Your task to perform on an android device: set default search engine in the chrome app Image 0: 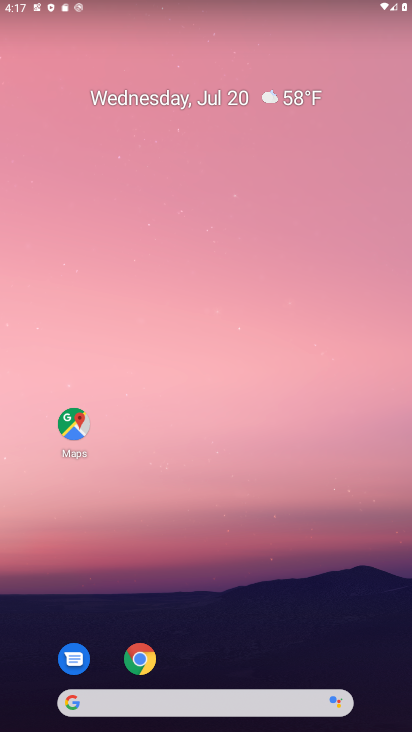
Step 0: drag from (224, 573) to (209, 389)
Your task to perform on an android device: set default search engine in the chrome app Image 1: 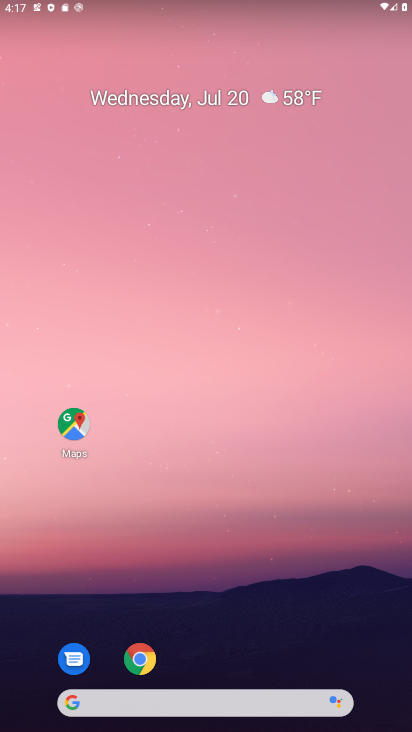
Step 1: drag from (243, 604) to (199, 281)
Your task to perform on an android device: set default search engine in the chrome app Image 2: 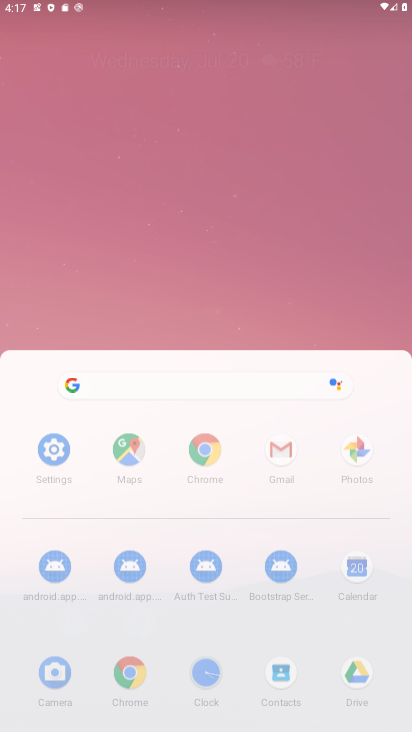
Step 2: drag from (208, 568) to (181, 159)
Your task to perform on an android device: set default search engine in the chrome app Image 3: 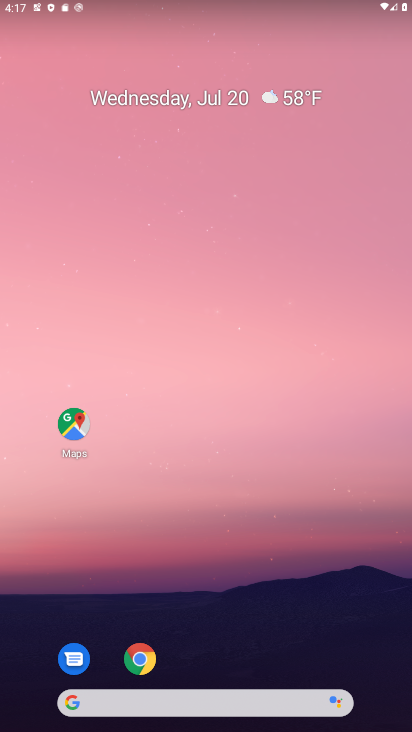
Step 3: drag from (253, 593) to (260, 181)
Your task to perform on an android device: set default search engine in the chrome app Image 4: 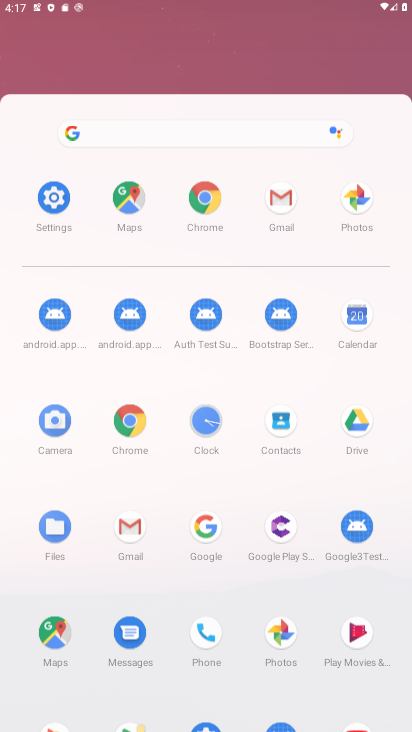
Step 4: drag from (311, 534) to (322, 174)
Your task to perform on an android device: set default search engine in the chrome app Image 5: 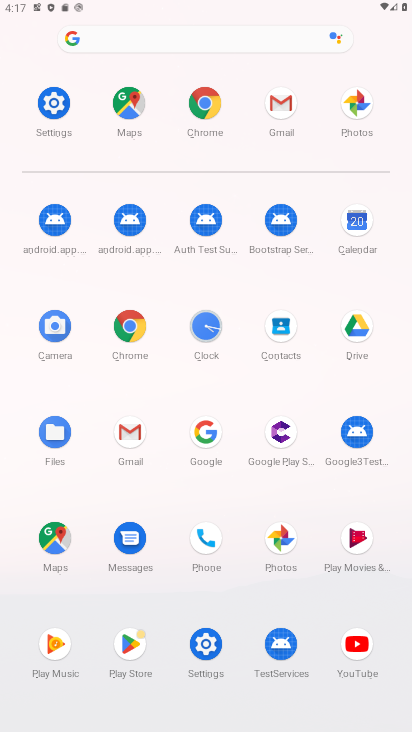
Step 5: click (205, 95)
Your task to perform on an android device: set default search engine in the chrome app Image 6: 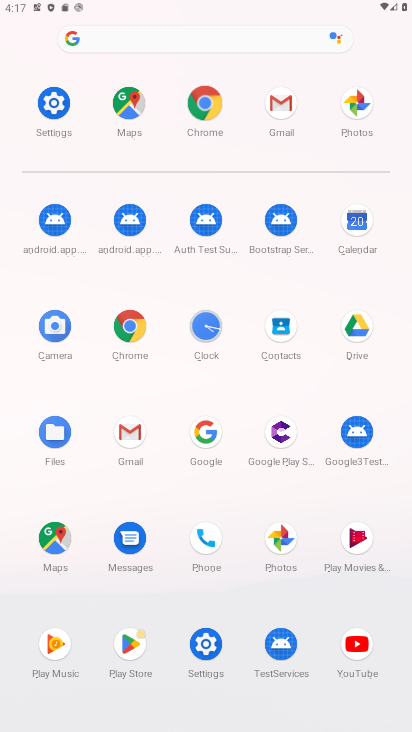
Step 6: click (207, 96)
Your task to perform on an android device: set default search engine in the chrome app Image 7: 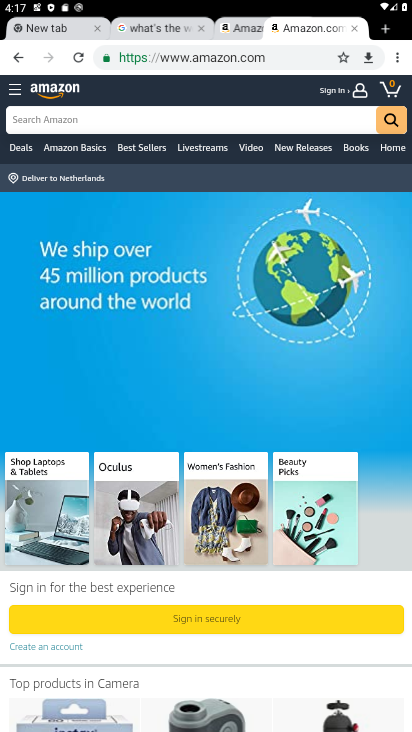
Step 7: drag from (406, 60) to (271, 376)
Your task to perform on an android device: set default search engine in the chrome app Image 8: 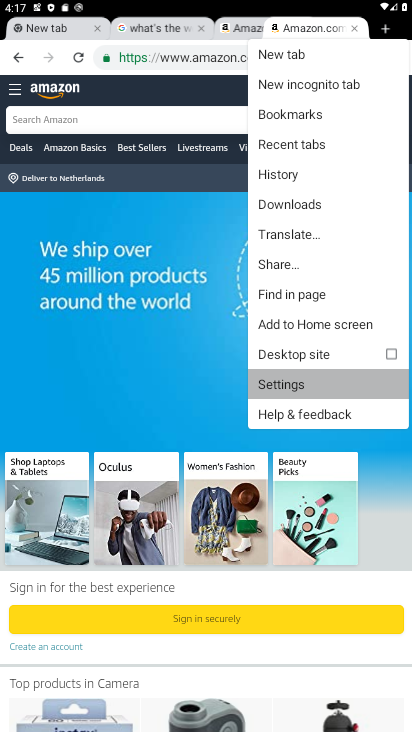
Step 8: click (272, 375)
Your task to perform on an android device: set default search engine in the chrome app Image 9: 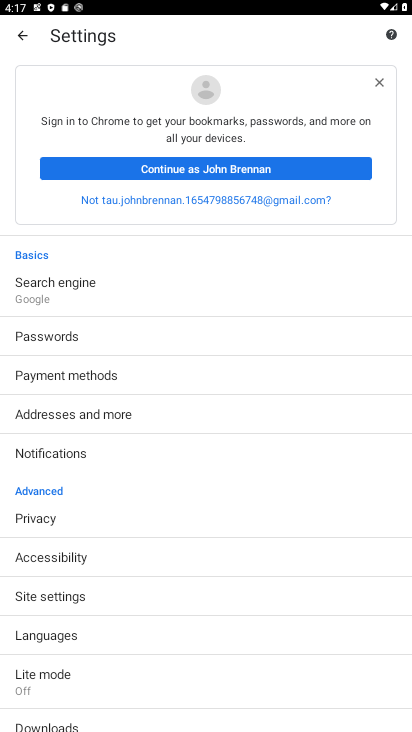
Step 9: click (56, 291)
Your task to perform on an android device: set default search engine in the chrome app Image 10: 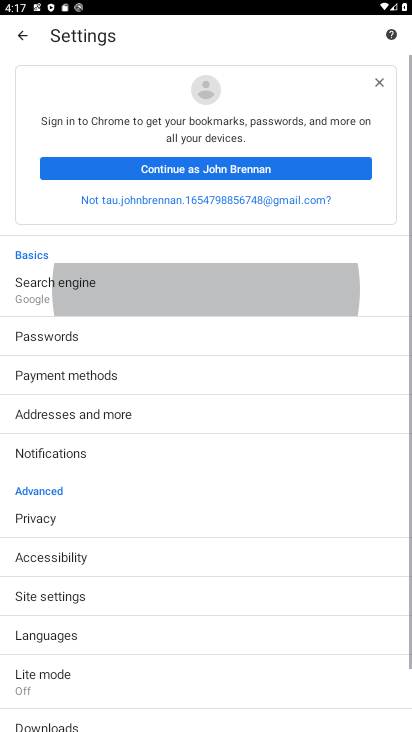
Step 10: click (56, 288)
Your task to perform on an android device: set default search engine in the chrome app Image 11: 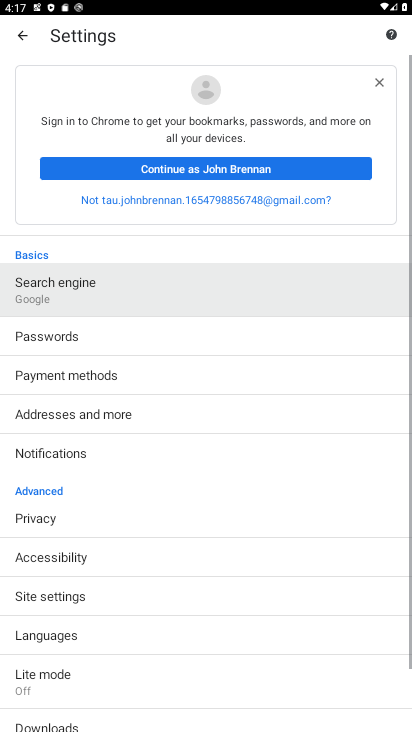
Step 11: click (59, 288)
Your task to perform on an android device: set default search engine in the chrome app Image 12: 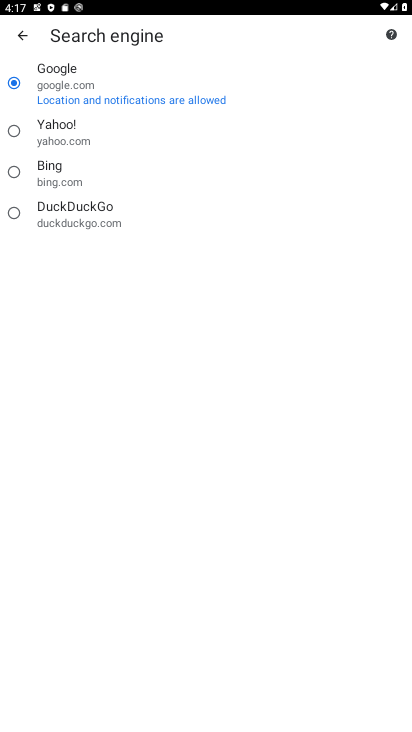
Step 12: task complete